Your task to perform on an android device: Search for Italian restaurants on Maps Image 0: 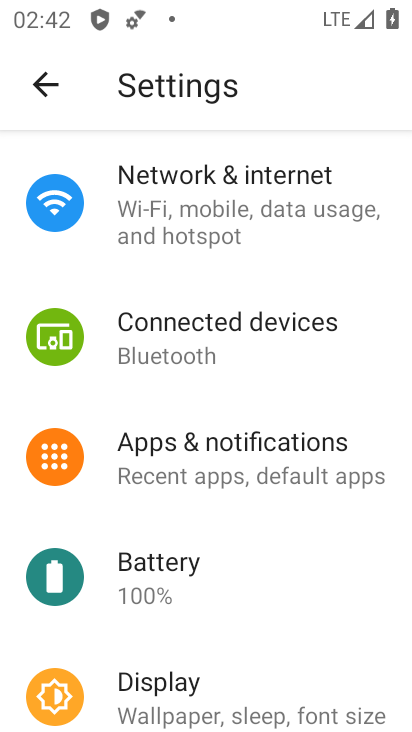
Step 0: press home button
Your task to perform on an android device: Search for Italian restaurants on Maps Image 1: 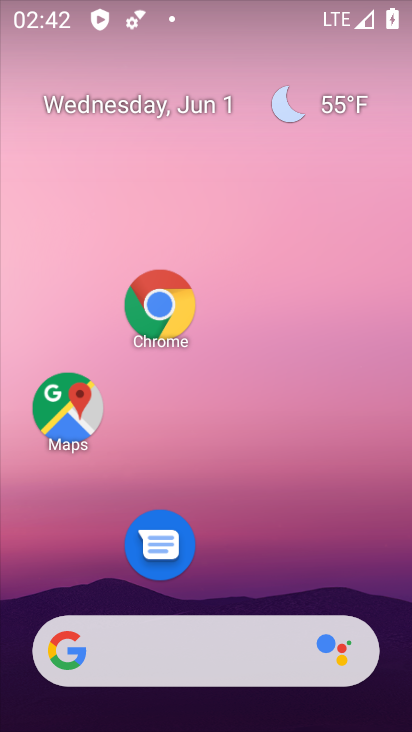
Step 1: click (54, 419)
Your task to perform on an android device: Search for Italian restaurants on Maps Image 2: 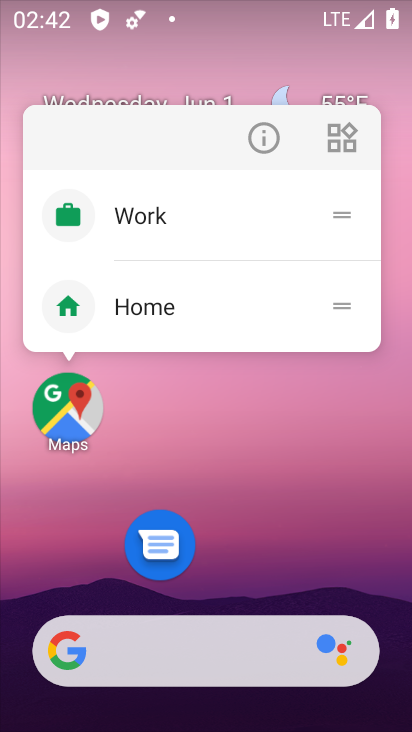
Step 2: click (71, 422)
Your task to perform on an android device: Search for Italian restaurants on Maps Image 3: 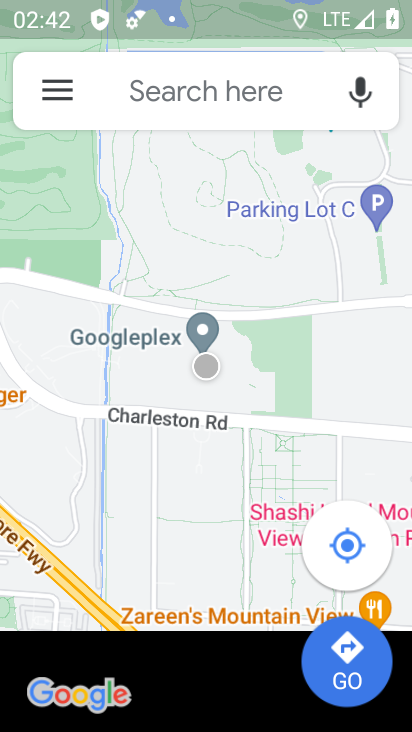
Step 3: click (186, 91)
Your task to perform on an android device: Search for Italian restaurants on Maps Image 4: 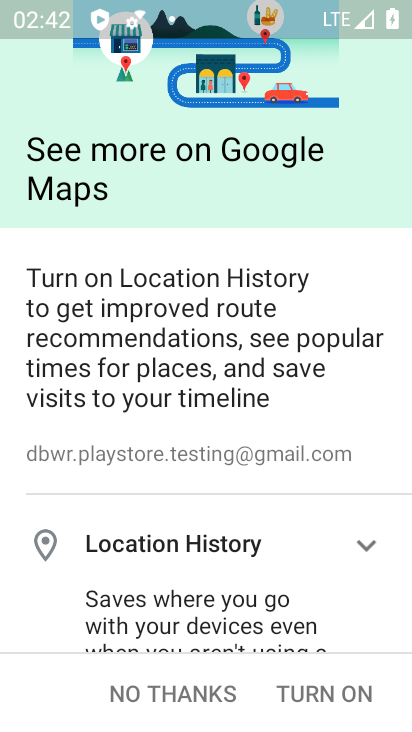
Step 4: click (193, 695)
Your task to perform on an android device: Search for Italian restaurants on Maps Image 5: 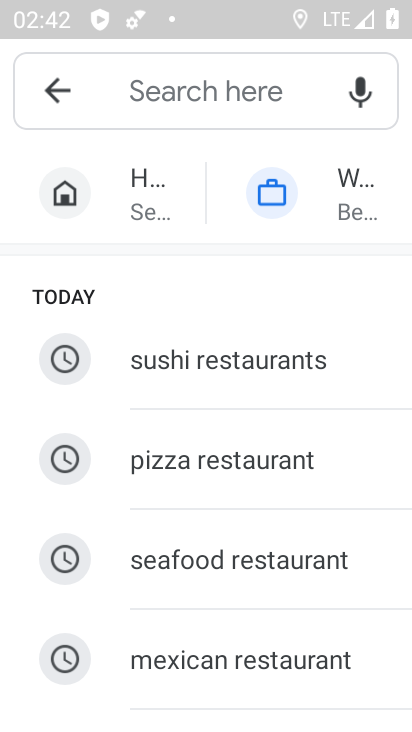
Step 5: drag from (220, 640) to (217, 530)
Your task to perform on an android device: Search for Italian restaurants on Maps Image 6: 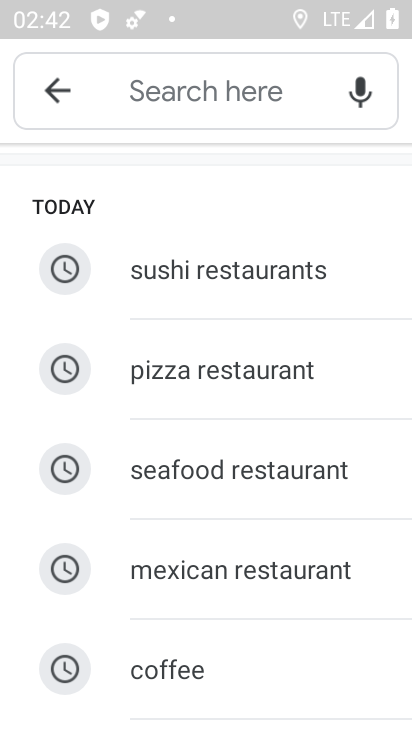
Step 6: click (183, 108)
Your task to perform on an android device: Search for Italian restaurants on Maps Image 7: 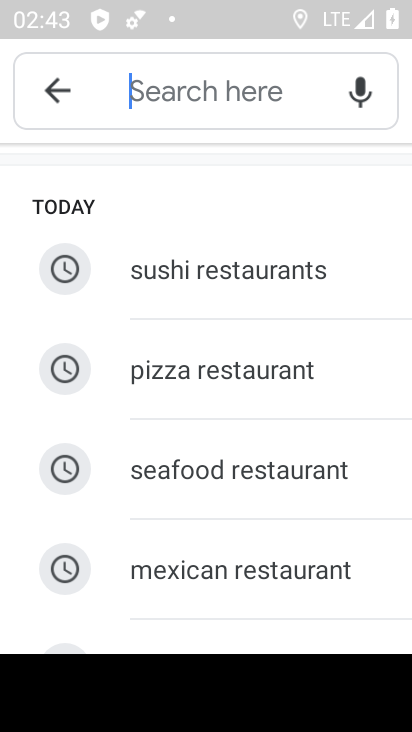
Step 7: type "Italian restaurants"
Your task to perform on an android device: Search for Italian restaurants on Maps Image 8: 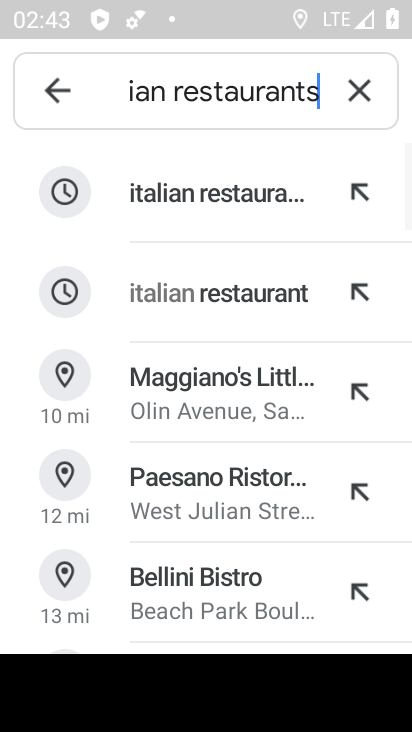
Step 8: click (245, 211)
Your task to perform on an android device: Search for Italian restaurants on Maps Image 9: 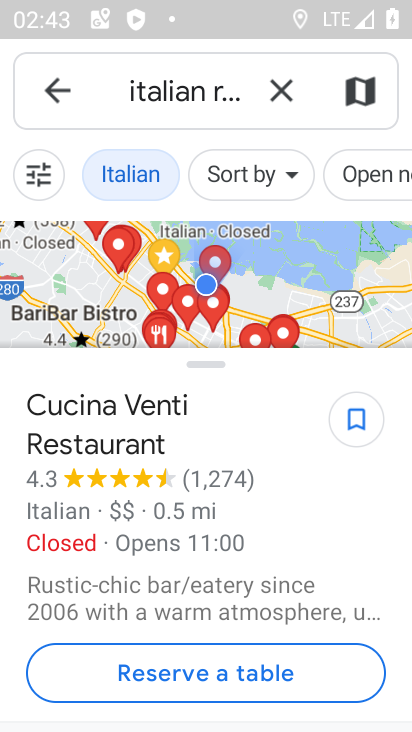
Step 9: task complete